Your task to perform on an android device: allow notifications from all sites in the chrome app Image 0: 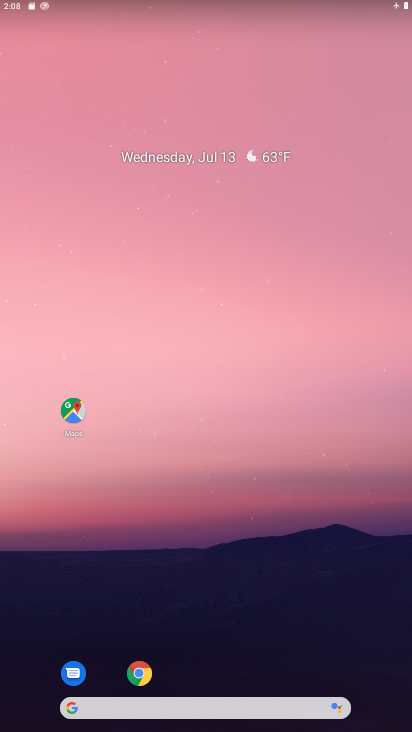
Step 0: drag from (288, 547) to (243, 90)
Your task to perform on an android device: allow notifications from all sites in the chrome app Image 1: 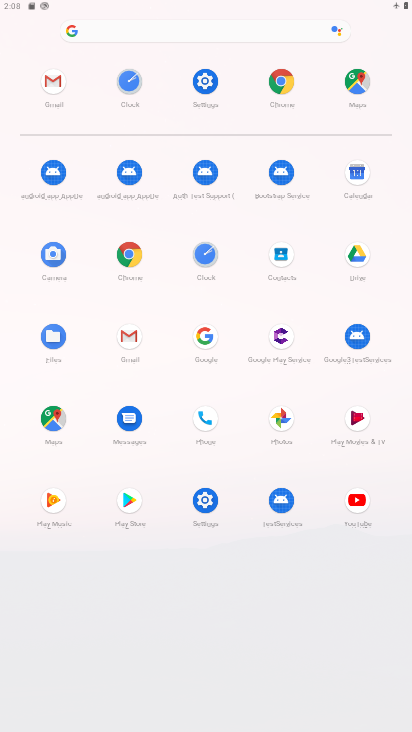
Step 1: click (289, 72)
Your task to perform on an android device: allow notifications from all sites in the chrome app Image 2: 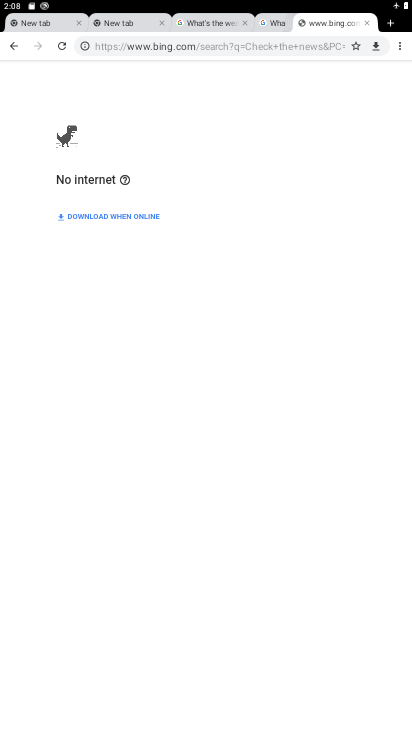
Step 2: click (402, 42)
Your task to perform on an android device: allow notifications from all sites in the chrome app Image 3: 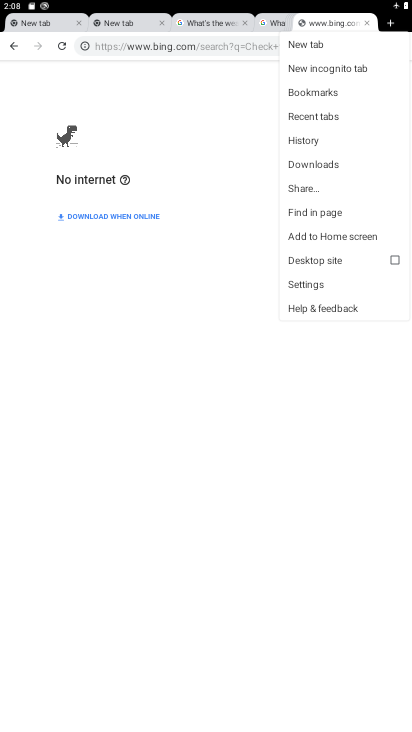
Step 3: click (313, 280)
Your task to perform on an android device: allow notifications from all sites in the chrome app Image 4: 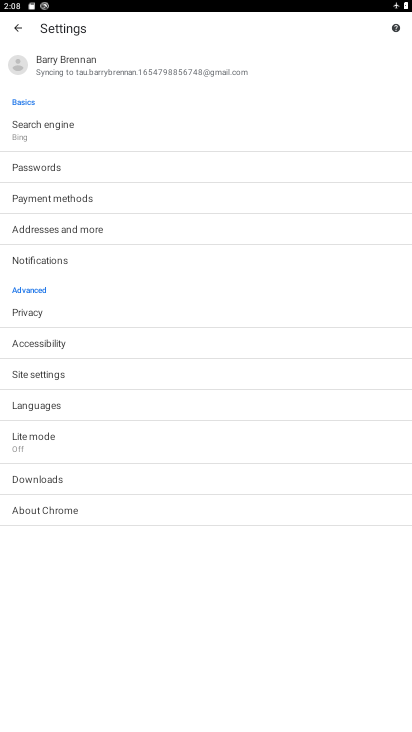
Step 4: click (73, 370)
Your task to perform on an android device: allow notifications from all sites in the chrome app Image 5: 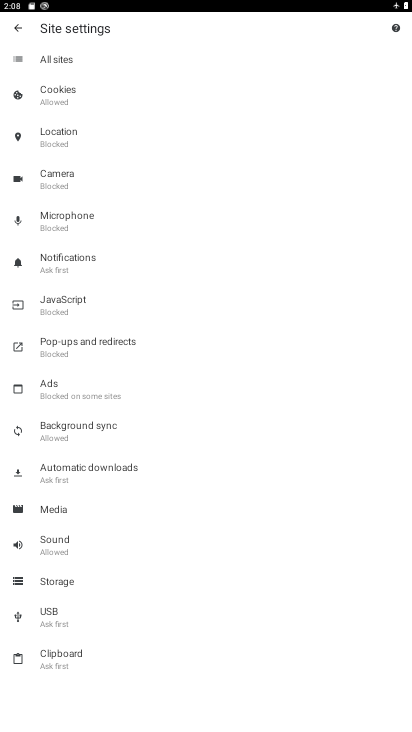
Step 5: click (83, 663)
Your task to perform on an android device: allow notifications from all sites in the chrome app Image 6: 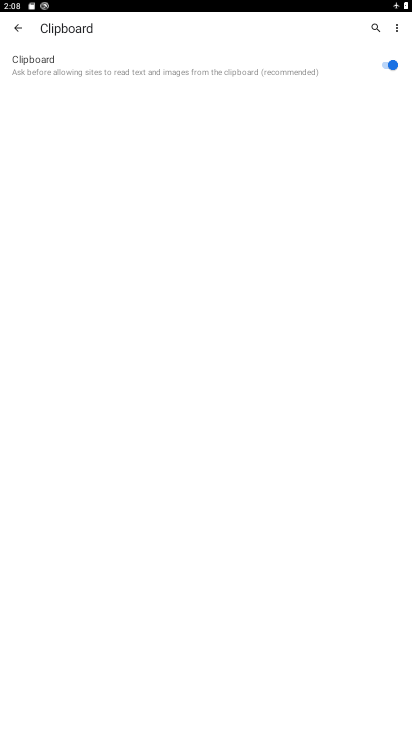
Step 6: click (13, 30)
Your task to perform on an android device: allow notifications from all sites in the chrome app Image 7: 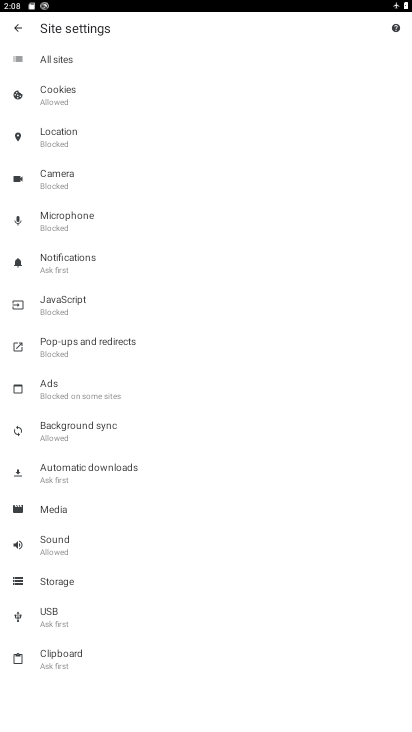
Step 7: click (50, 620)
Your task to perform on an android device: allow notifications from all sites in the chrome app Image 8: 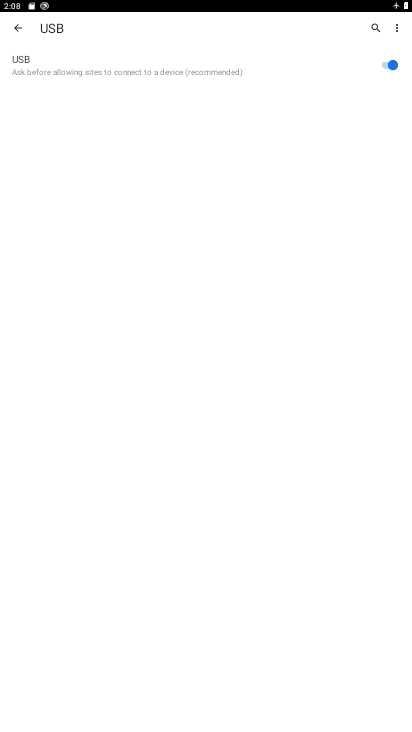
Step 8: click (18, 24)
Your task to perform on an android device: allow notifications from all sites in the chrome app Image 9: 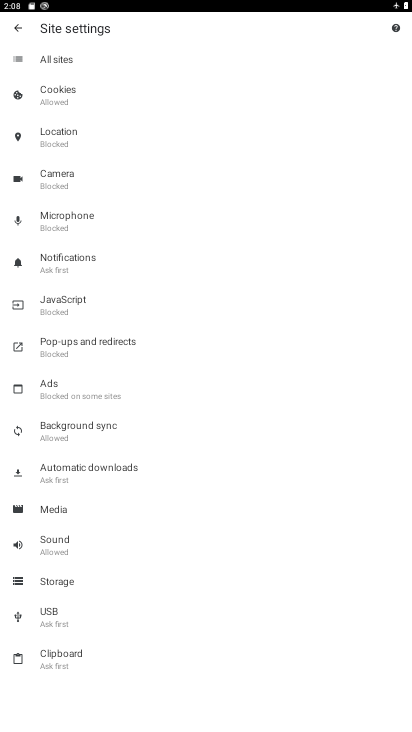
Step 9: click (45, 583)
Your task to perform on an android device: allow notifications from all sites in the chrome app Image 10: 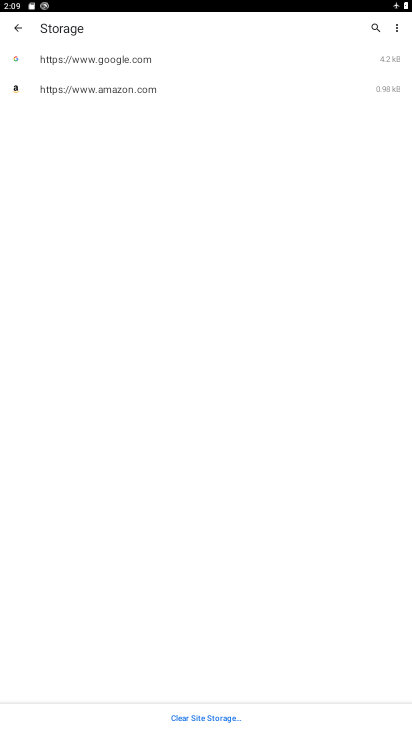
Step 10: click (30, 19)
Your task to perform on an android device: allow notifications from all sites in the chrome app Image 11: 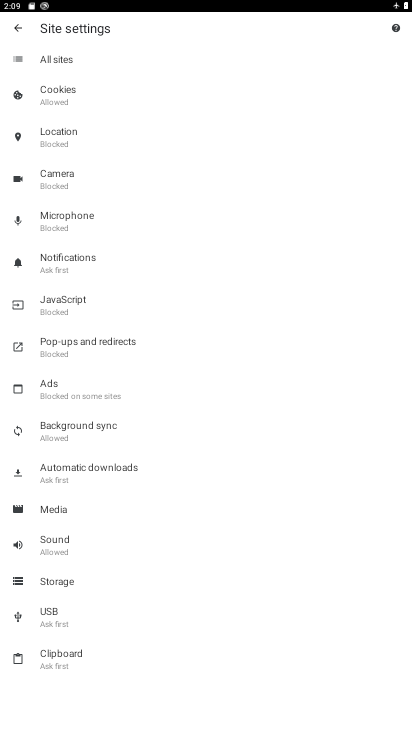
Step 11: click (74, 514)
Your task to perform on an android device: allow notifications from all sites in the chrome app Image 12: 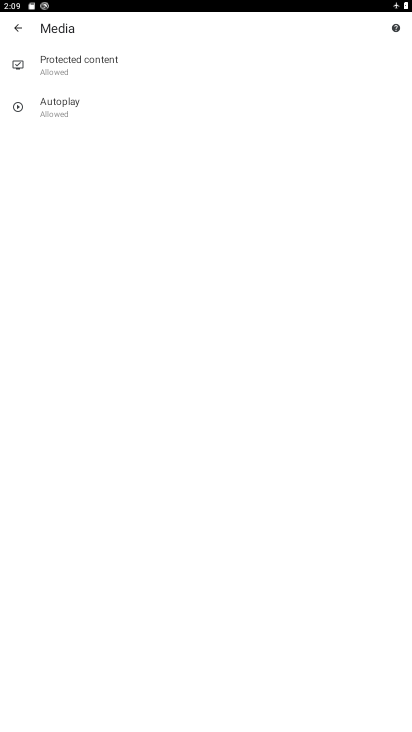
Step 12: click (21, 28)
Your task to perform on an android device: allow notifications from all sites in the chrome app Image 13: 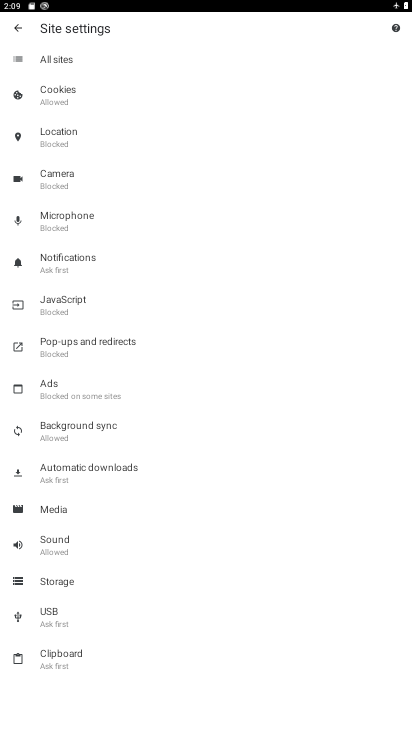
Step 13: click (63, 481)
Your task to perform on an android device: allow notifications from all sites in the chrome app Image 14: 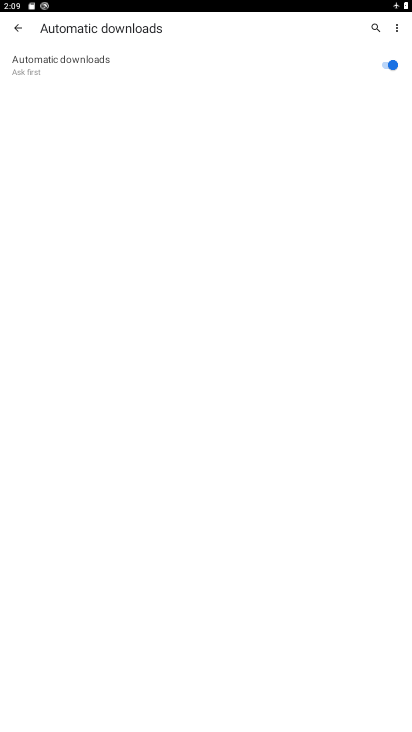
Step 14: click (26, 23)
Your task to perform on an android device: allow notifications from all sites in the chrome app Image 15: 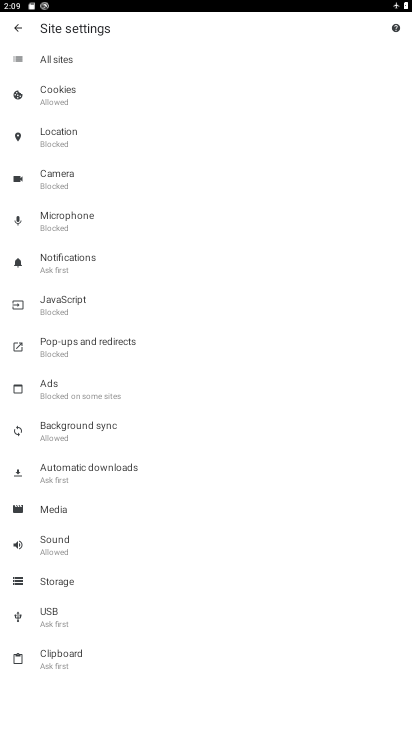
Step 15: click (89, 422)
Your task to perform on an android device: allow notifications from all sites in the chrome app Image 16: 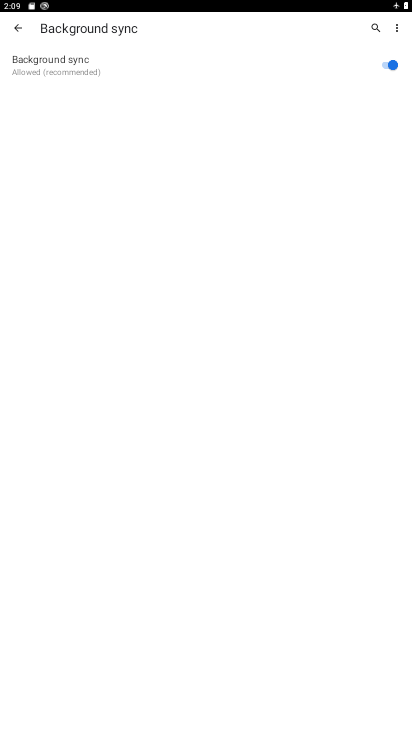
Step 16: click (24, 29)
Your task to perform on an android device: allow notifications from all sites in the chrome app Image 17: 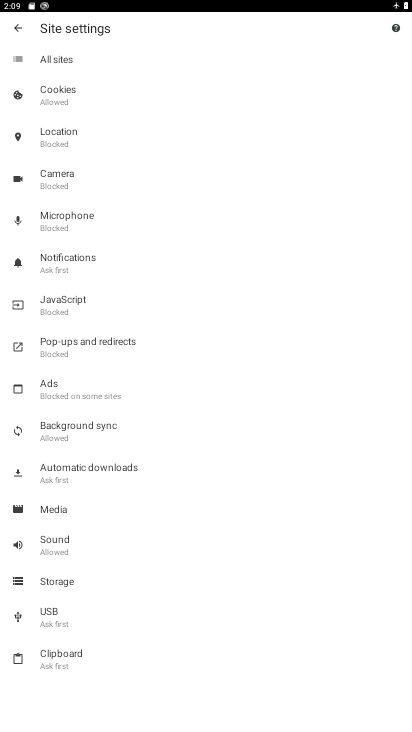
Step 17: click (79, 298)
Your task to perform on an android device: allow notifications from all sites in the chrome app Image 18: 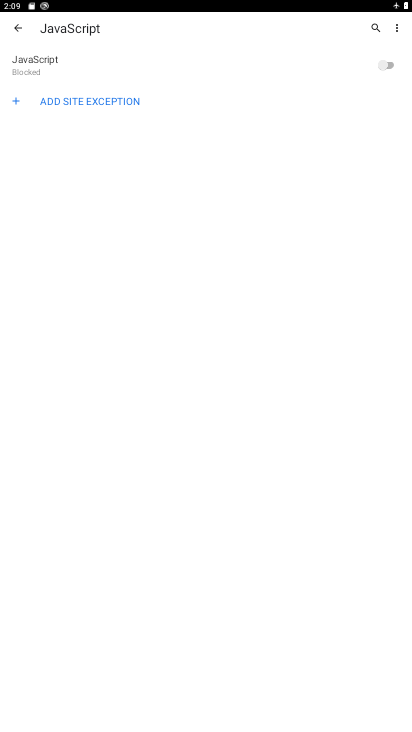
Step 18: click (379, 62)
Your task to perform on an android device: allow notifications from all sites in the chrome app Image 19: 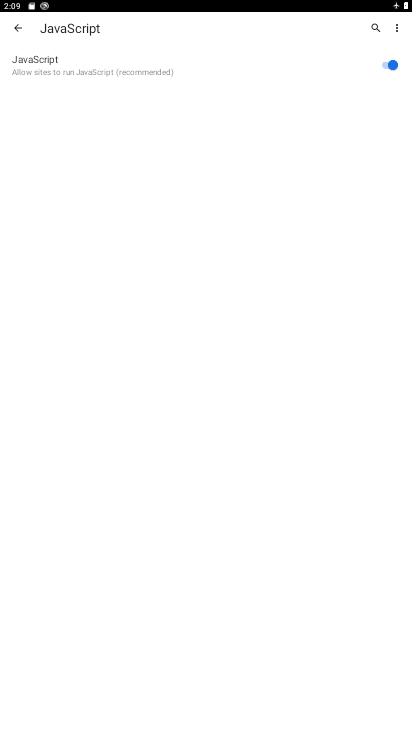
Step 19: click (18, 21)
Your task to perform on an android device: allow notifications from all sites in the chrome app Image 20: 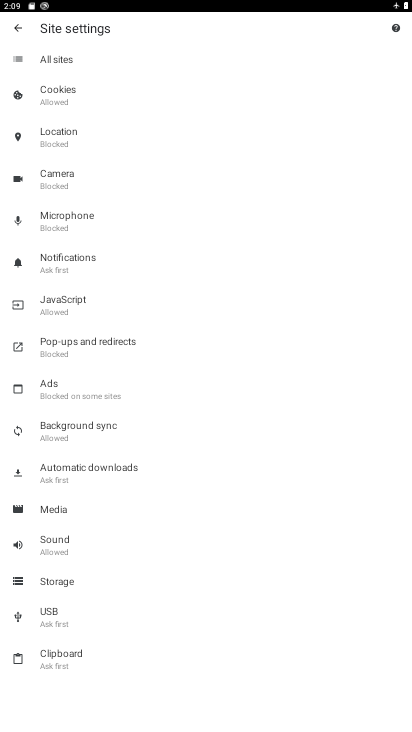
Step 20: click (96, 254)
Your task to perform on an android device: allow notifications from all sites in the chrome app Image 21: 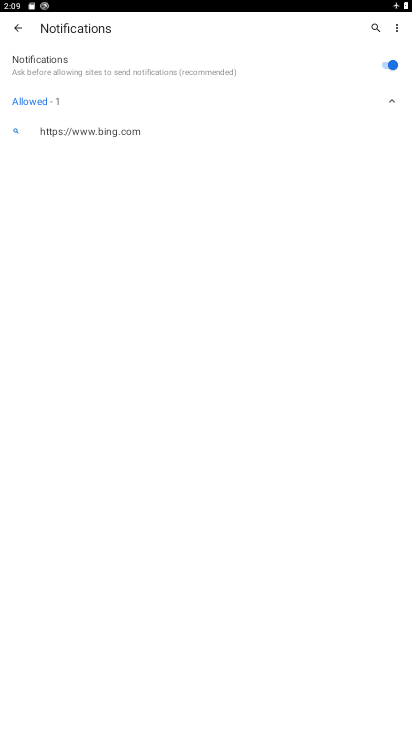
Step 21: click (13, 23)
Your task to perform on an android device: allow notifications from all sites in the chrome app Image 22: 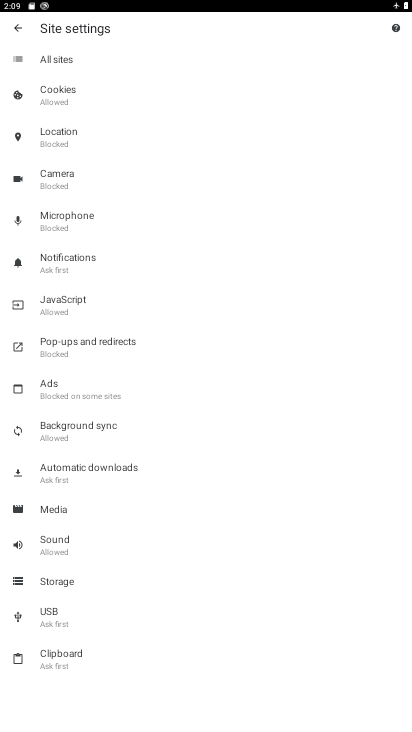
Step 22: click (112, 214)
Your task to perform on an android device: allow notifications from all sites in the chrome app Image 23: 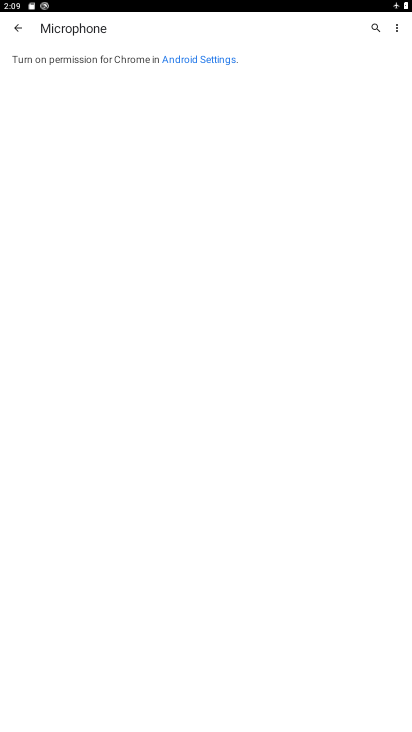
Step 23: click (12, 21)
Your task to perform on an android device: allow notifications from all sites in the chrome app Image 24: 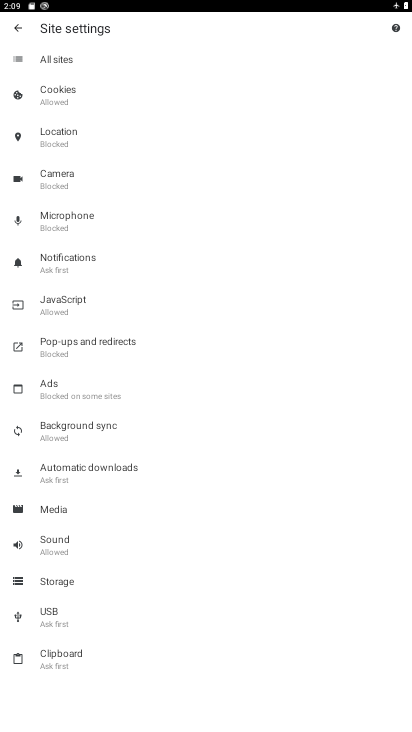
Step 24: click (89, 152)
Your task to perform on an android device: allow notifications from all sites in the chrome app Image 25: 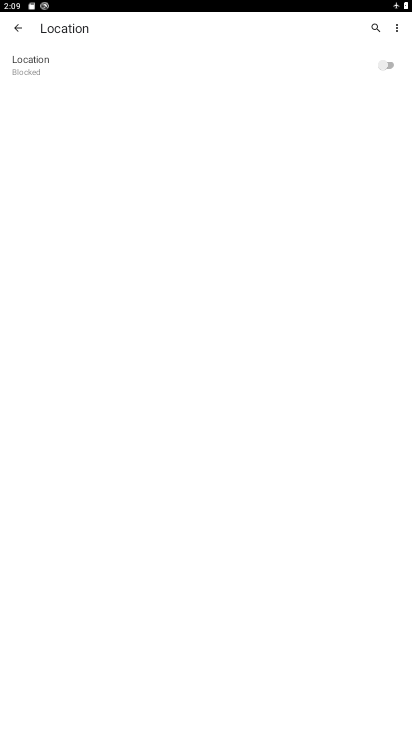
Step 25: click (380, 68)
Your task to perform on an android device: allow notifications from all sites in the chrome app Image 26: 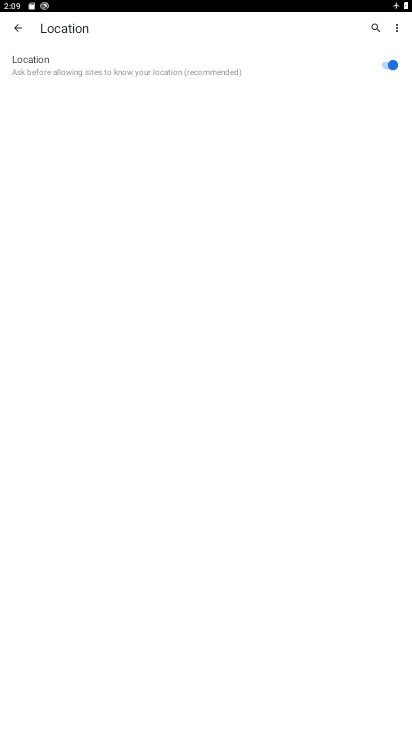
Step 26: click (18, 24)
Your task to perform on an android device: allow notifications from all sites in the chrome app Image 27: 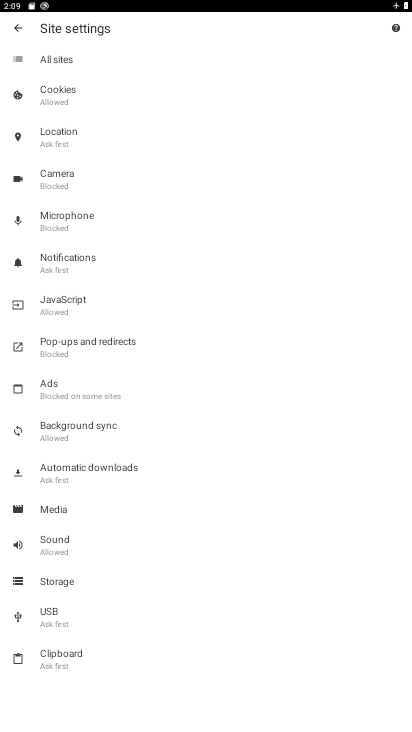
Step 27: click (87, 96)
Your task to perform on an android device: allow notifications from all sites in the chrome app Image 28: 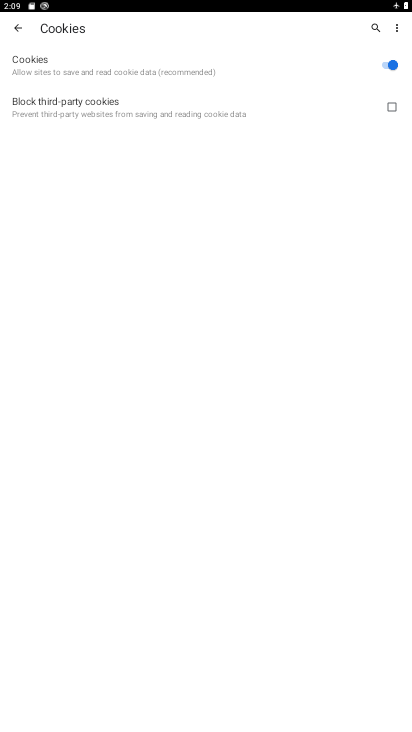
Step 28: task complete